Your task to perform on an android device: change the clock style Image 0: 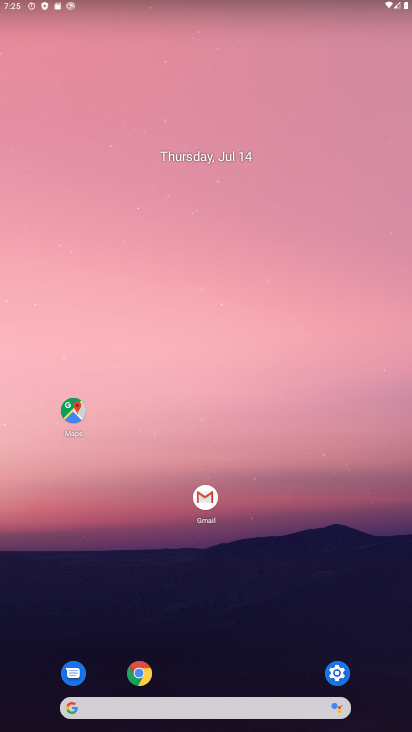
Step 0: drag from (236, 720) to (297, 135)
Your task to perform on an android device: change the clock style Image 1: 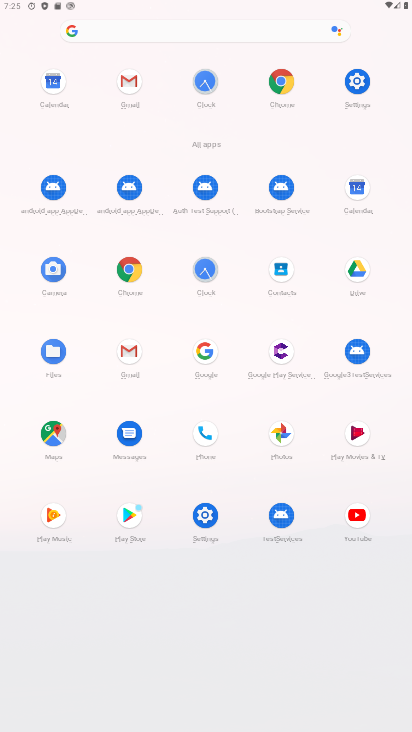
Step 1: click (203, 272)
Your task to perform on an android device: change the clock style Image 2: 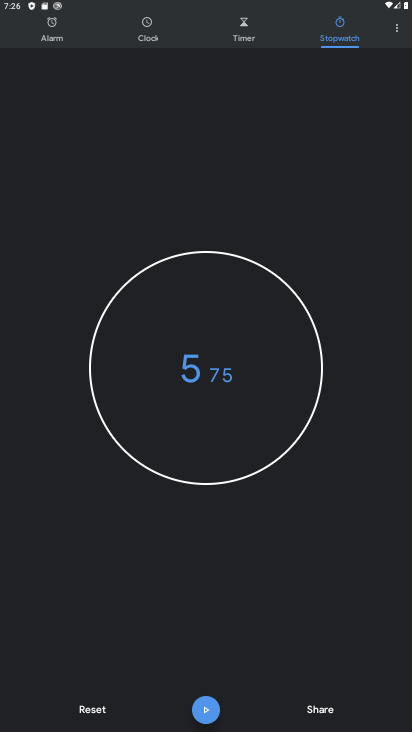
Step 2: click (396, 38)
Your task to perform on an android device: change the clock style Image 3: 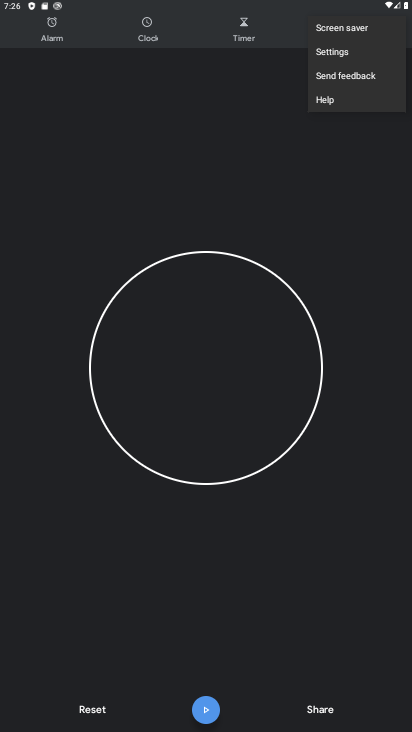
Step 3: click (343, 55)
Your task to perform on an android device: change the clock style Image 4: 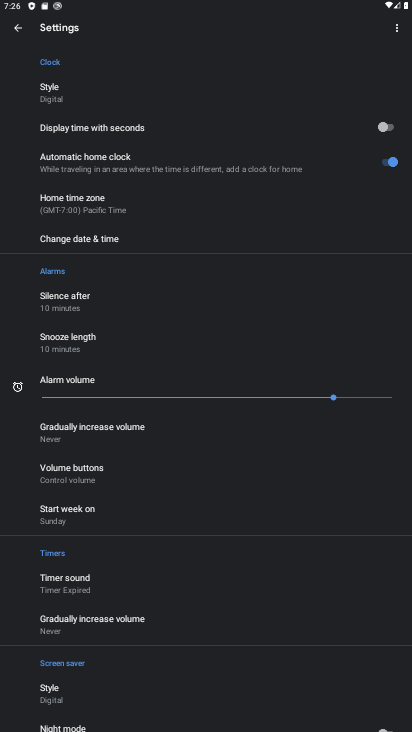
Step 4: click (132, 95)
Your task to perform on an android device: change the clock style Image 5: 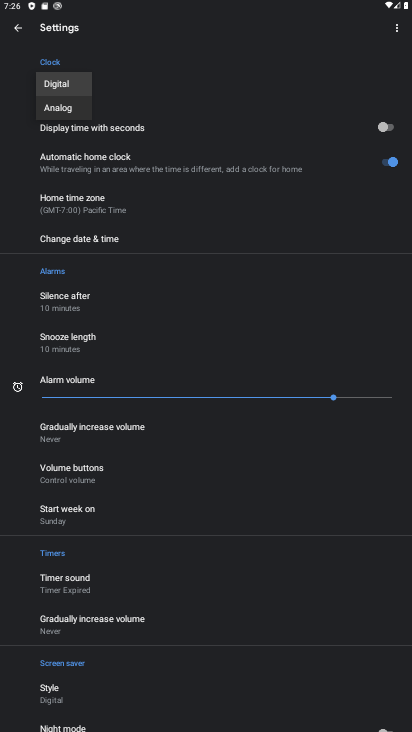
Step 5: click (66, 116)
Your task to perform on an android device: change the clock style Image 6: 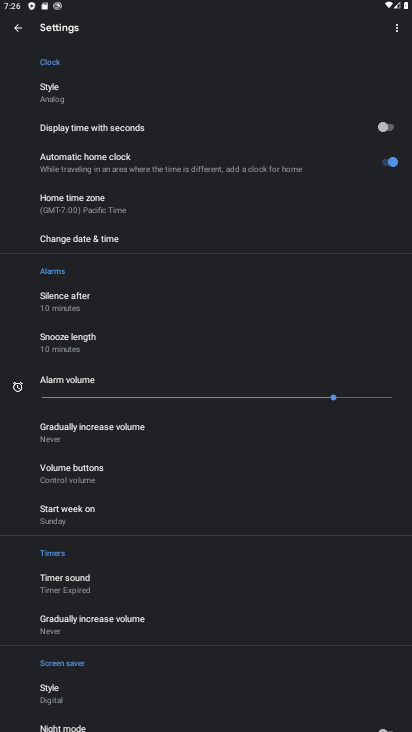
Step 6: task complete